Your task to perform on an android device: What's the weather going to be this weekend? Image 0: 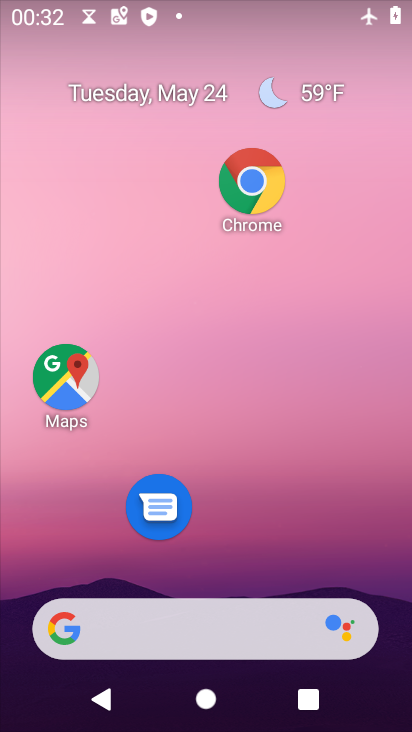
Step 0: drag from (290, 525) to (323, 325)
Your task to perform on an android device: What's the weather going to be this weekend? Image 1: 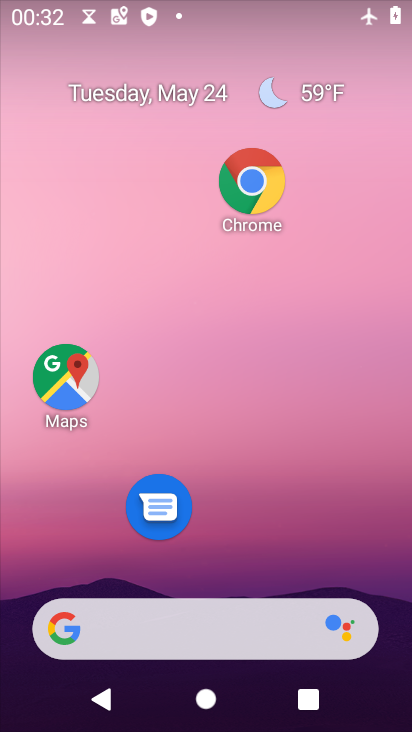
Step 1: click (251, 162)
Your task to perform on an android device: What's the weather going to be this weekend? Image 2: 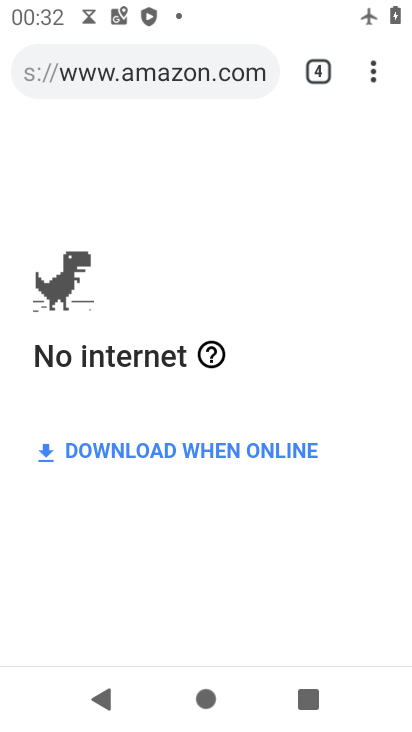
Step 2: click (370, 73)
Your task to perform on an android device: What's the weather going to be this weekend? Image 3: 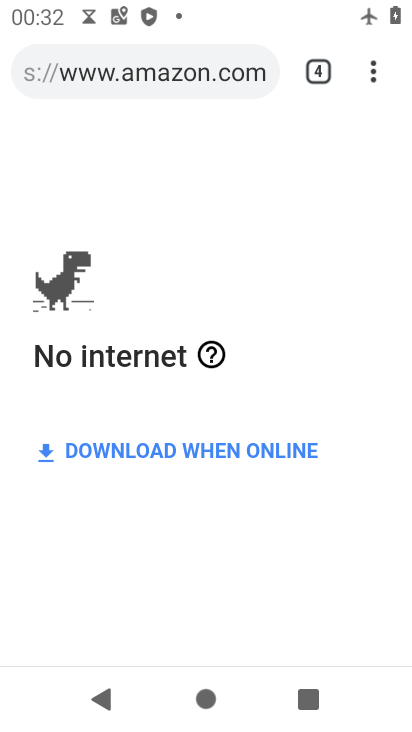
Step 3: click (359, 66)
Your task to perform on an android device: What's the weather going to be this weekend? Image 4: 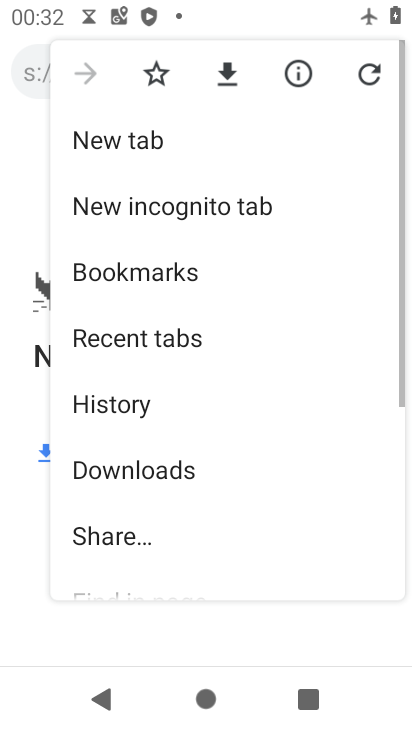
Step 4: click (162, 137)
Your task to perform on an android device: What's the weather going to be this weekend? Image 5: 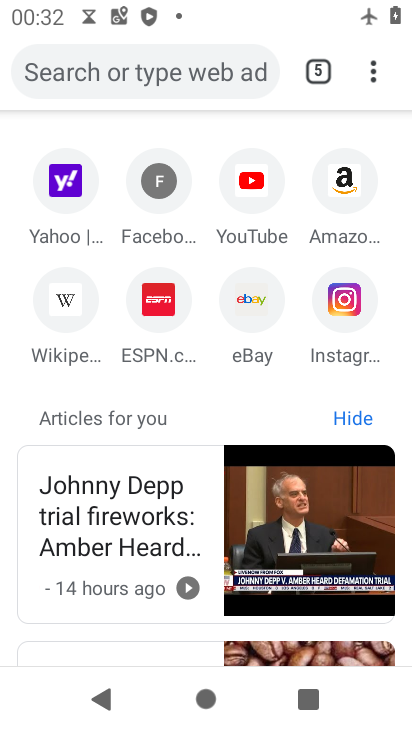
Step 5: click (191, 64)
Your task to perform on an android device: What's the weather going to be this weekend? Image 6: 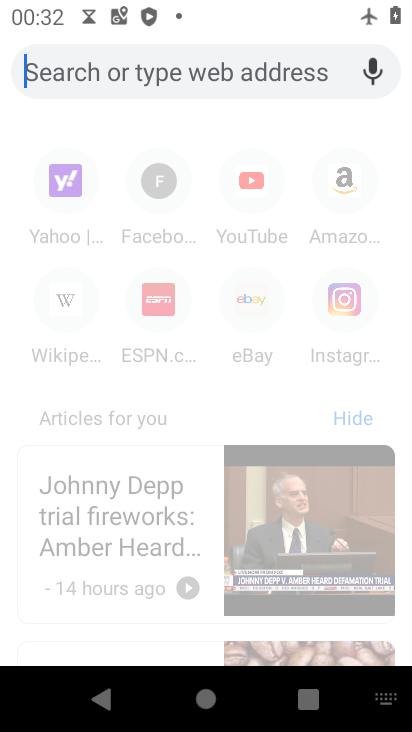
Step 6: type "What's the weather going to be this weekend?"
Your task to perform on an android device: What's the weather going to be this weekend? Image 7: 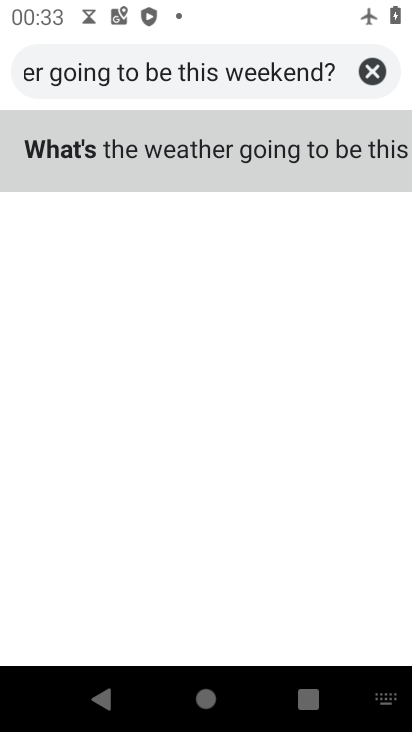
Step 7: click (303, 158)
Your task to perform on an android device: What's the weather going to be this weekend? Image 8: 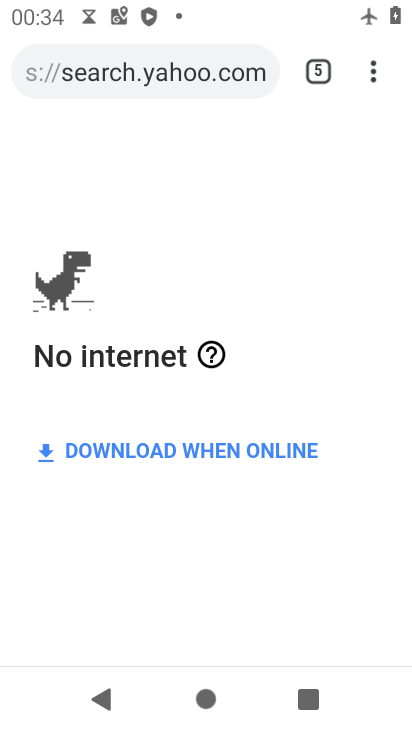
Step 8: task complete